Your task to perform on an android device: change the clock display to analog Image 0: 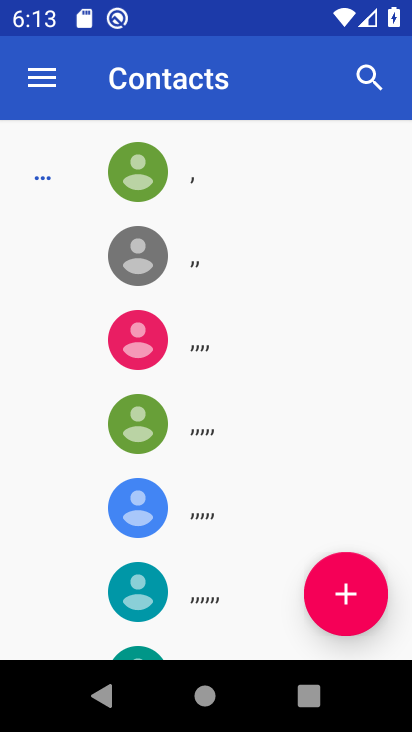
Step 0: press home button
Your task to perform on an android device: change the clock display to analog Image 1: 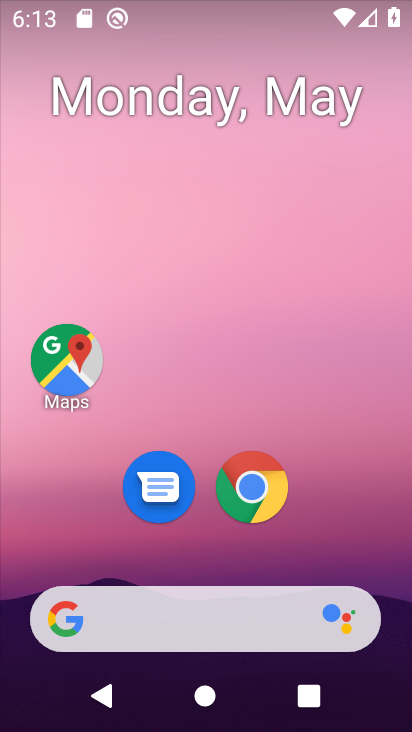
Step 1: drag from (210, 566) to (237, 83)
Your task to perform on an android device: change the clock display to analog Image 2: 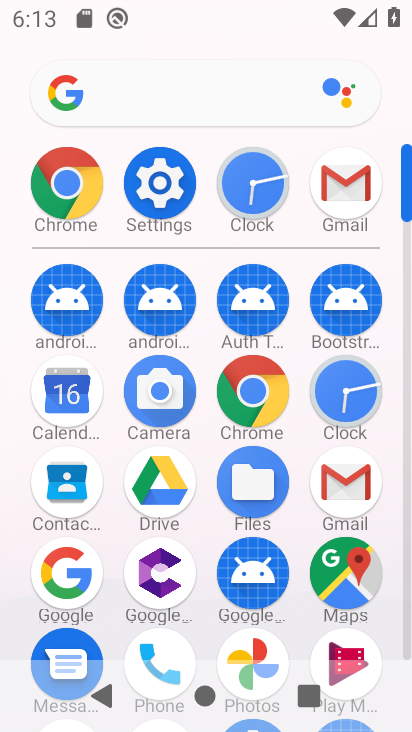
Step 2: click (249, 180)
Your task to perform on an android device: change the clock display to analog Image 3: 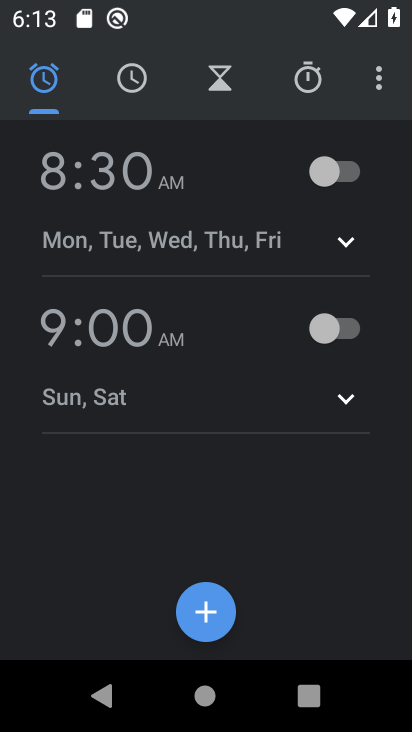
Step 3: click (375, 72)
Your task to perform on an android device: change the clock display to analog Image 4: 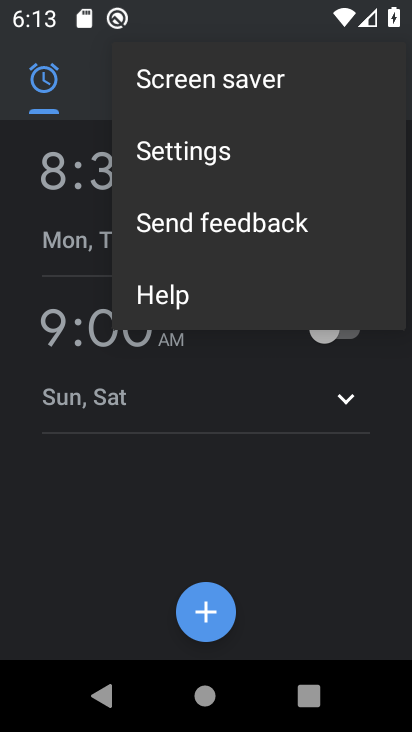
Step 4: click (242, 147)
Your task to perform on an android device: change the clock display to analog Image 5: 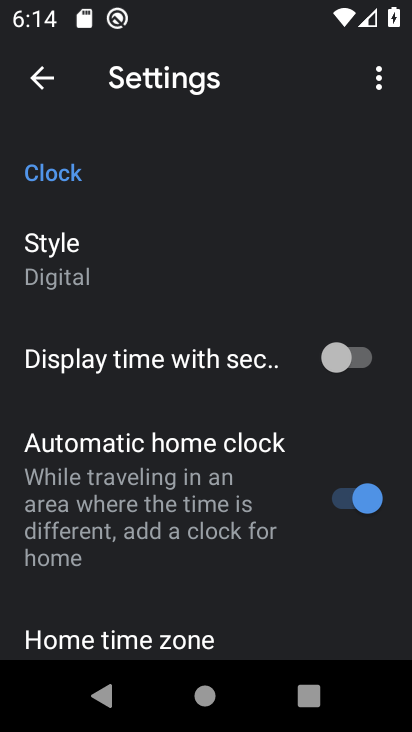
Step 5: drag from (220, 589) to (258, 248)
Your task to perform on an android device: change the clock display to analog Image 6: 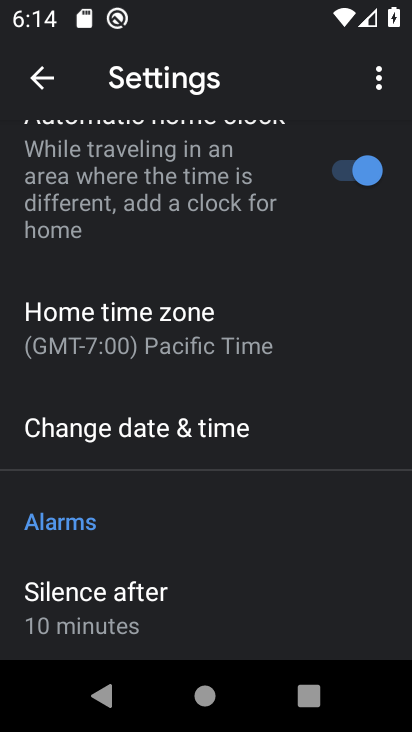
Step 6: drag from (194, 162) to (205, 700)
Your task to perform on an android device: change the clock display to analog Image 7: 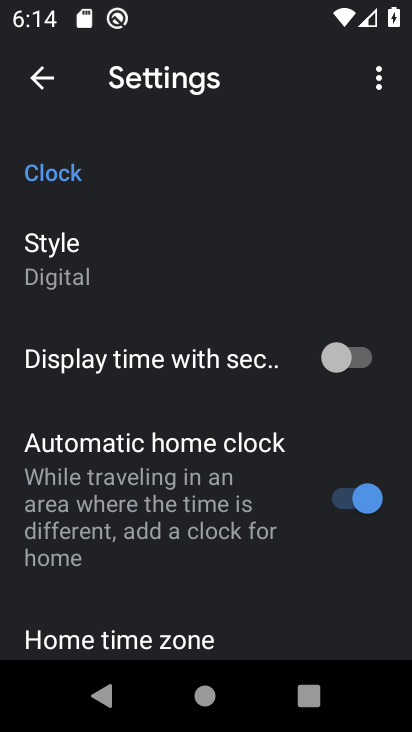
Step 7: click (145, 263)
Your task to perform on an android device: change the clock display to analog Image 8: 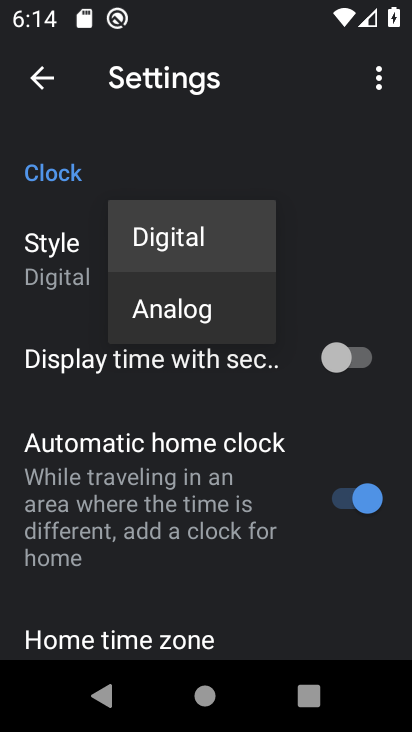
Step 8: click (171, 318)
Your task to perform on an android device: change the clock display to analog Image 9: 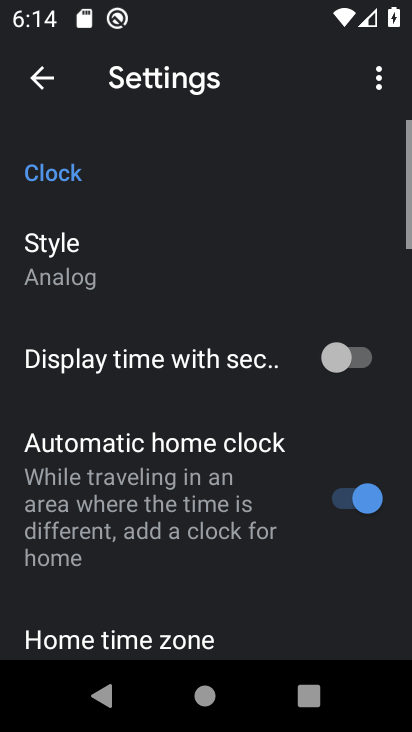
Step 9: task complete